Your task to perform on an android device: check the backup settings in the google photos Image 0: 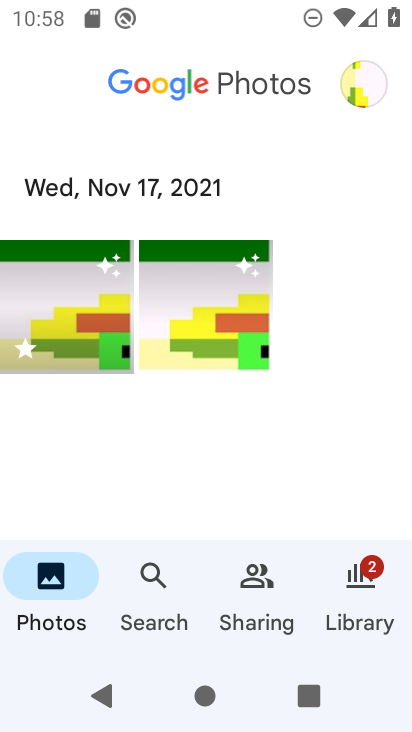
Step 0: click (370, 73)
Your task to perform on an android device: check the backup settings in the google photos Image 1: 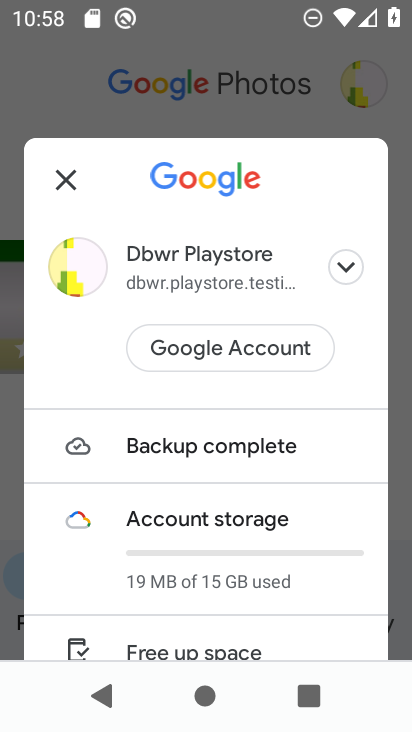
Step 1: drag from (223, 489) to (319, 122)
Your task to perform on an android device: check the backup settings in the google photos Image 2: 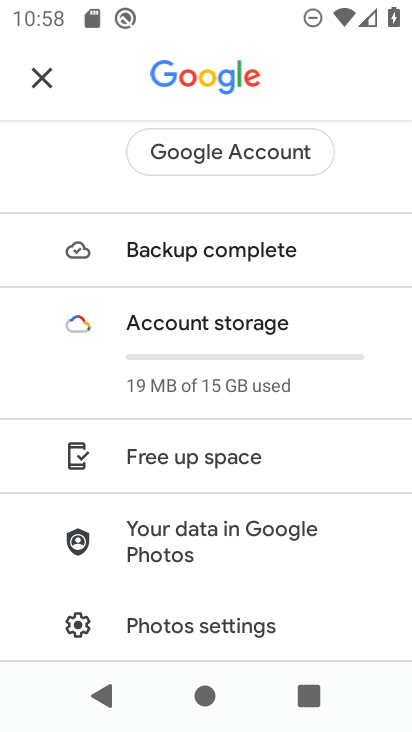
Step 2: click (187, 627)
Your task to perform on an android device: check the backup settings in the google photos Image 3: 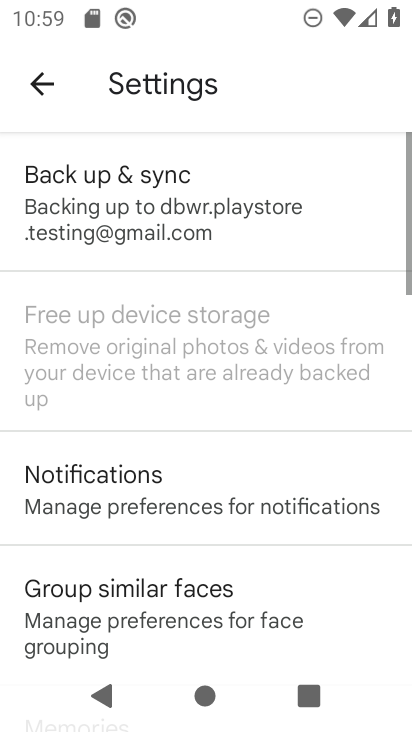
Step 3: click (241, 162)
Your task to perform on an android device: check the backup settings in the google photos Image 4: 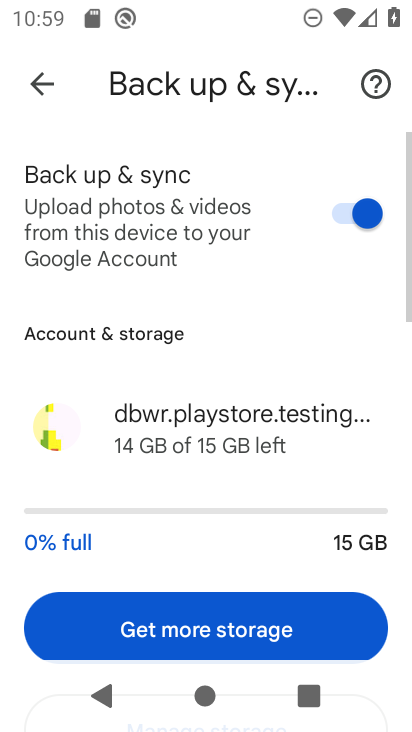
Step 4: task complete